Your task to perform on an android device: Open maps Image 0: 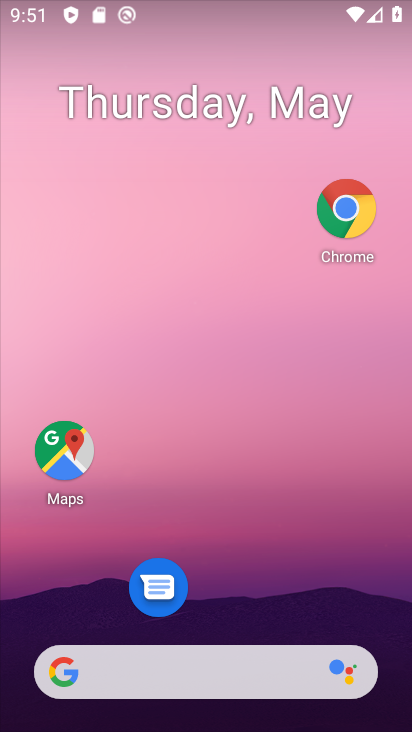
Step 0: click (74, 450)
Your task to perform on an android device: Open maps Image 1: 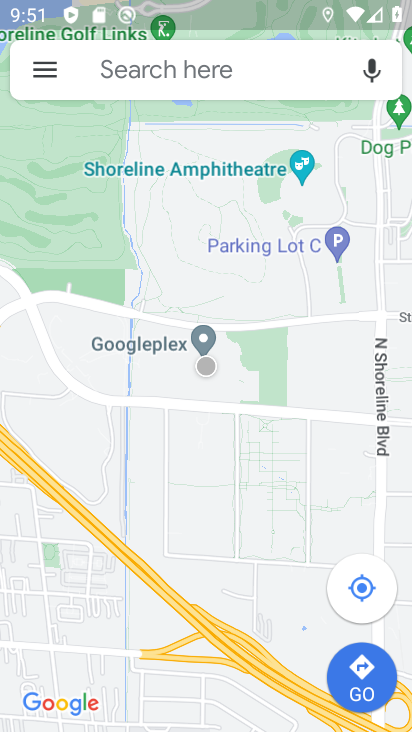
Step 1: task complete